Your task to perform on an android device: change your default location settings in chrome Image 0: 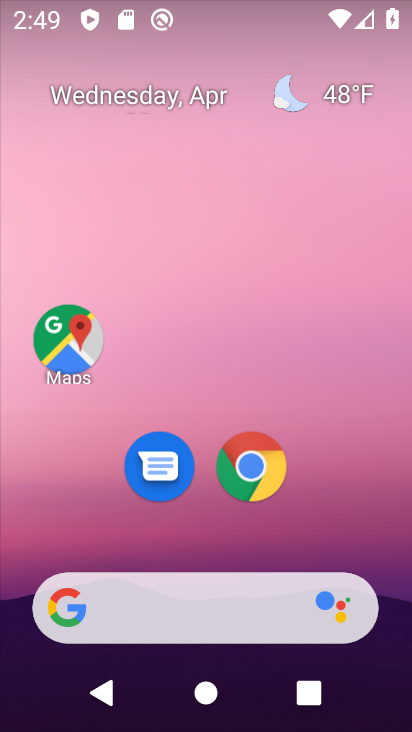
Step 0: click (269, 473)
Your task to perform on an android device: change your default location settings in chrome Image 1: 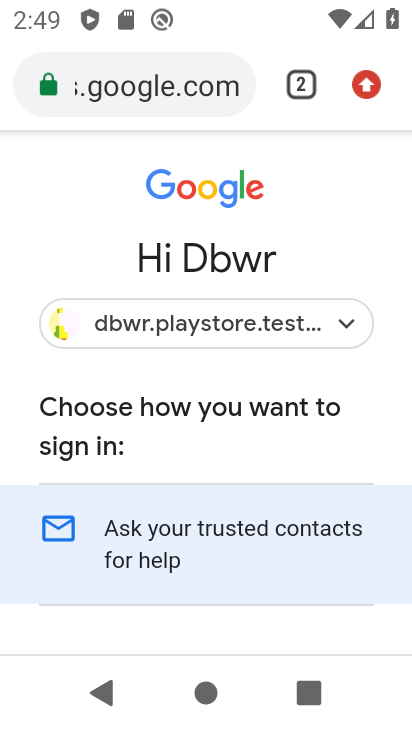
Step 1: click (368, 84)
Your task to perform on an android device: change your default location settings in chrome Image 2: 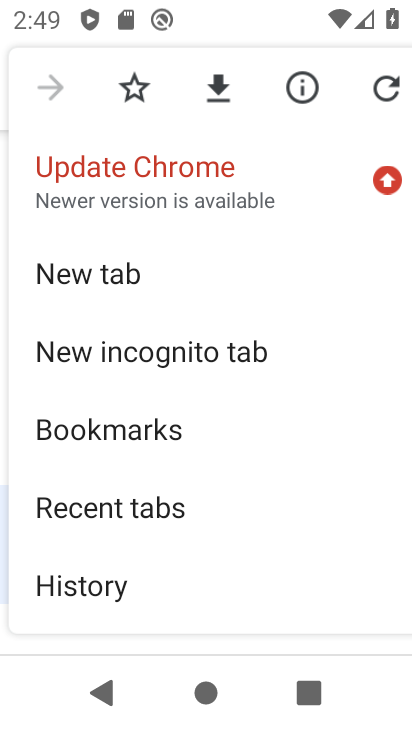
Step 2: drag from (197, 577) to (247, 31)
Your task to perform on an android device: change your default location settings in chrome Image 3: 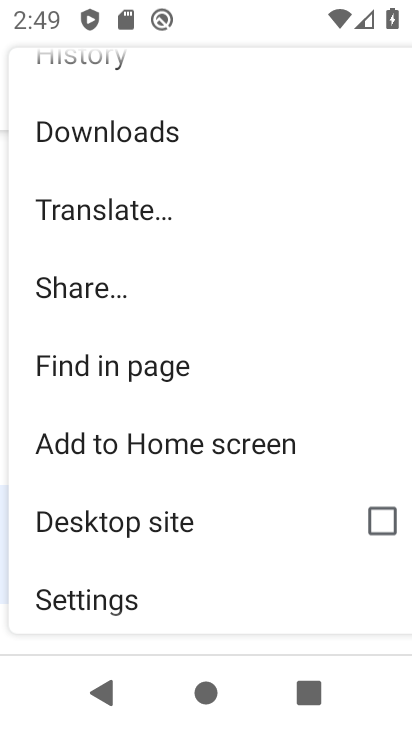
Step 3: click (194, 604)
Your task to perform on an android device: change your default location settings in chrome Image 4: 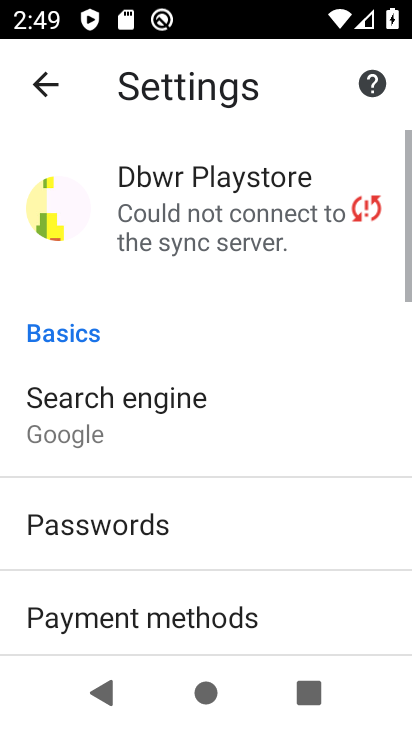
Step 4: drag from (217, 534) to (226, 102)
Your task to perform on an android device: change your default location settings in chrome Image 5: 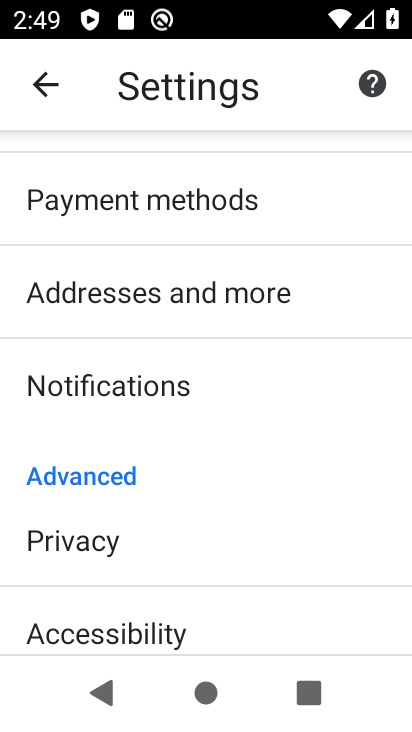
Step 5: drag from (180, 578) to (189, 177)
Your task to perform on an android device: change your default location settings in chrome Image 6: 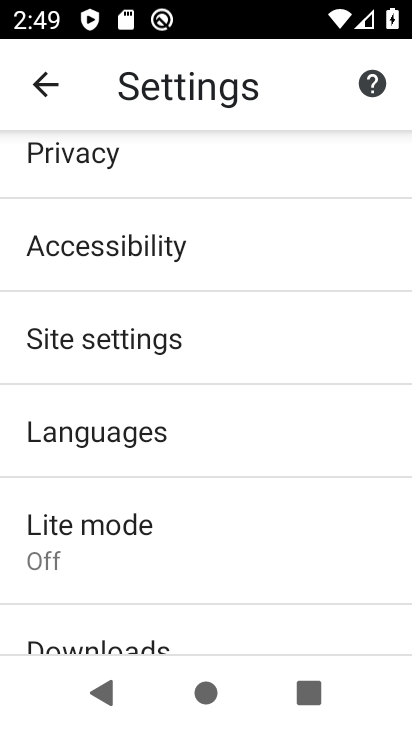
Step 6: click (154, 341)
Your task to perform on an android device: change your default location settings in chrome Image 7: 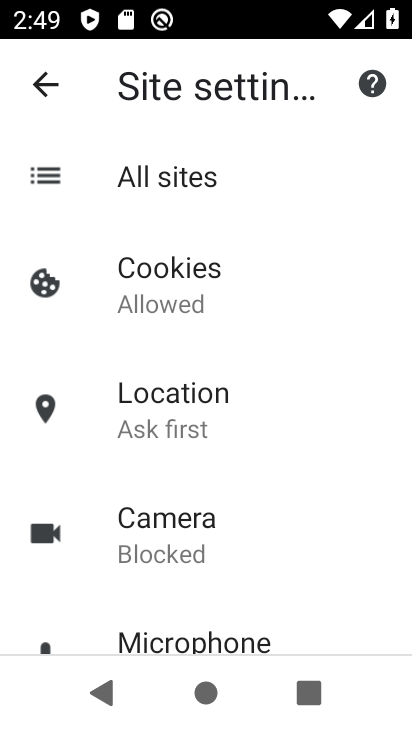
Step 7: click (197, 406)
Your task to perform on an android device: change your default location settings in chrome Image 8: 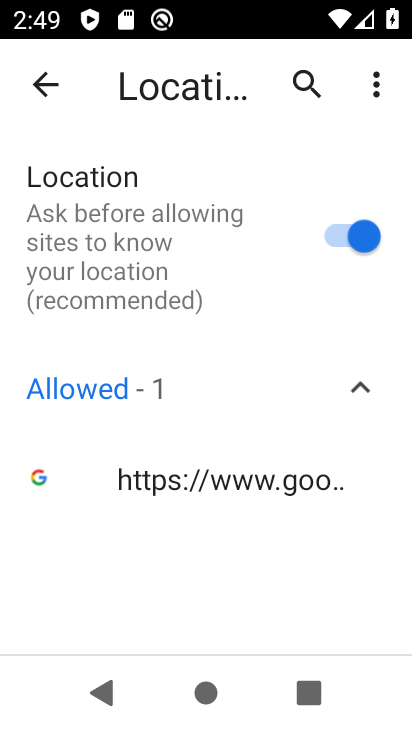
Step 8: click (343, 216)
Your task to perform on an android device: change your default location settings in chrome Image 9: 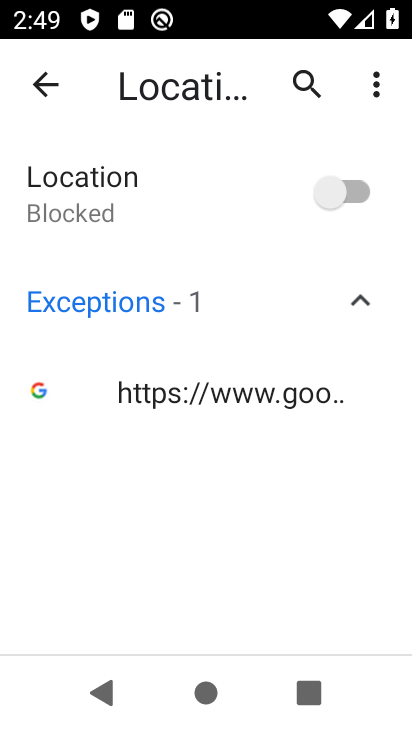
Step 9: task complete